Your task to perform on an android device: find snoozed emails in the gmail app Image 0: 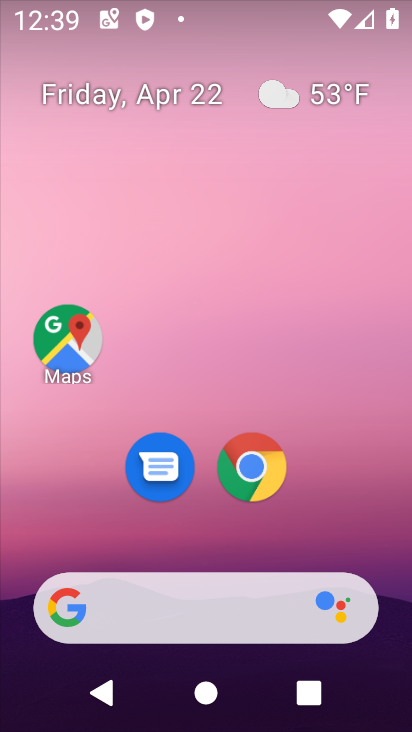
Step 0: drag from (388, 602) to (341, 107)
Your task to perform on an android device: find snoozed emails in the gmail app Image 1: 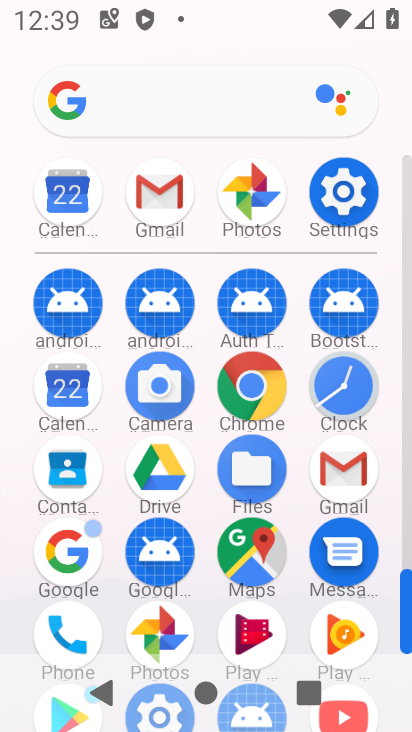
Step 1: click (337, 466)
Your task to perform on an android device: find snoozed emails in the gmail app Image 2: 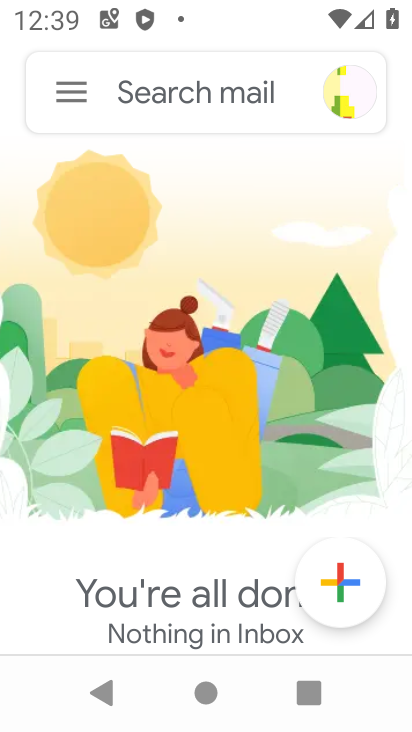
Step 2: click (60, 79)
Your task to perform on an android device: find snoozed emails in the gmail app Image 3: 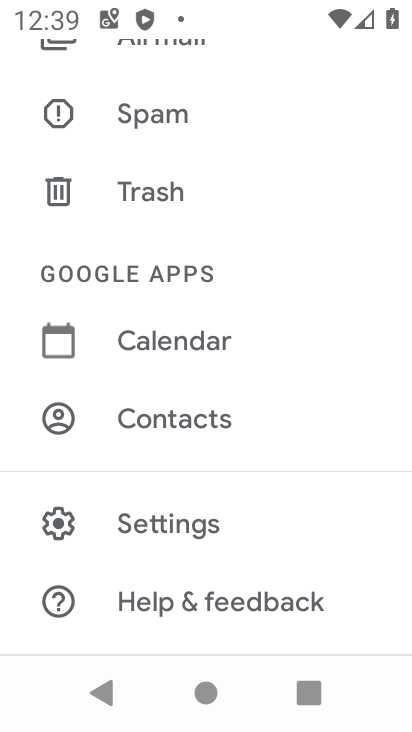
Step 3: drag from (279, 227) to (284, 447)
Your task to perform on an android device: find snoozed emails in the gmail app Image 4: 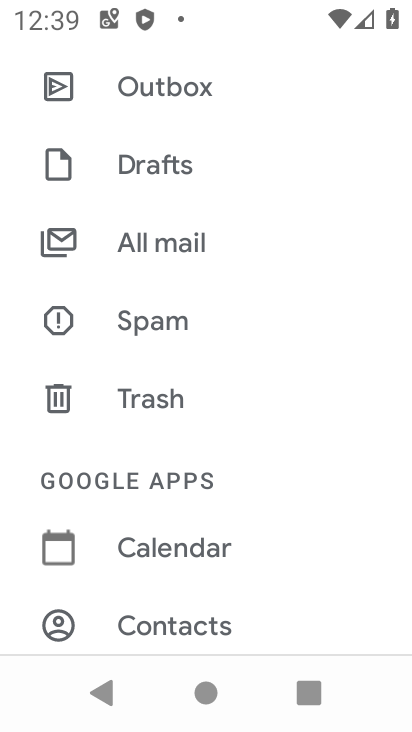
Step 4: drag from (319, 241) to (298, 494)
Your task to perform on an android device: find snoozed emails in the gmail app Image 5: 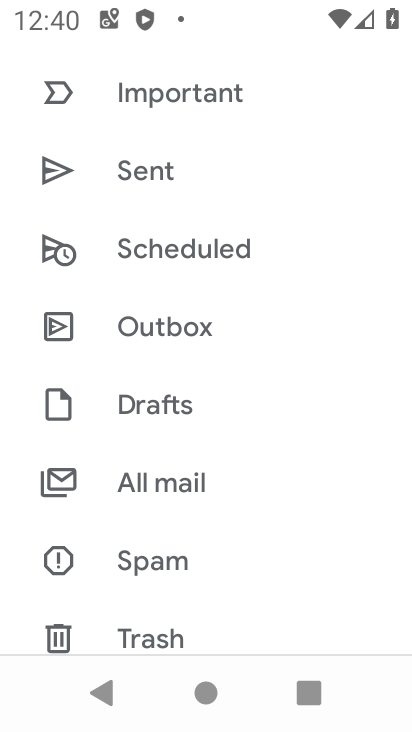
Step 5: drag from (311, 265) to (295, 491)
Your task to perform on an android device: find snoozed emails in the gmail app Image 6: 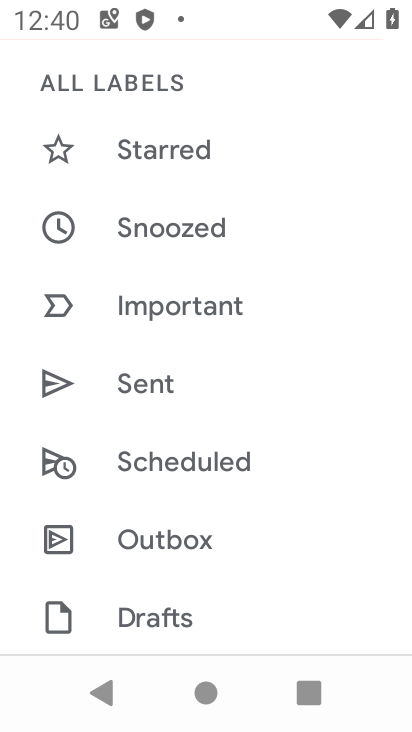
Step 6: click (153, 220)
Your task to perform on an android device: find snoozed emails in the gmail app Image 7: 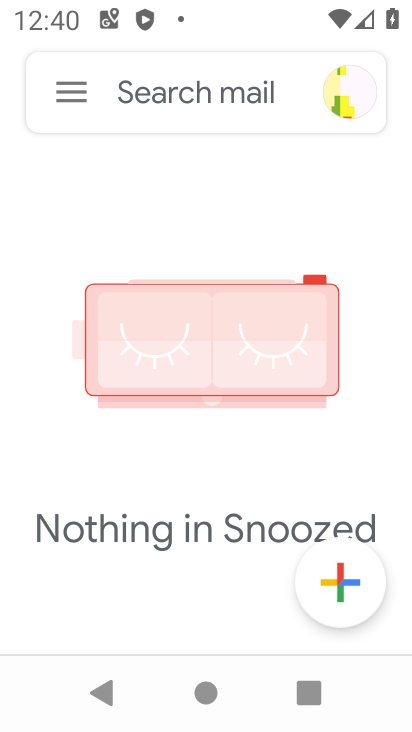
Step 7: task complete